Your task to perform on an android device: add a label to a message in the gmail app Image 0: 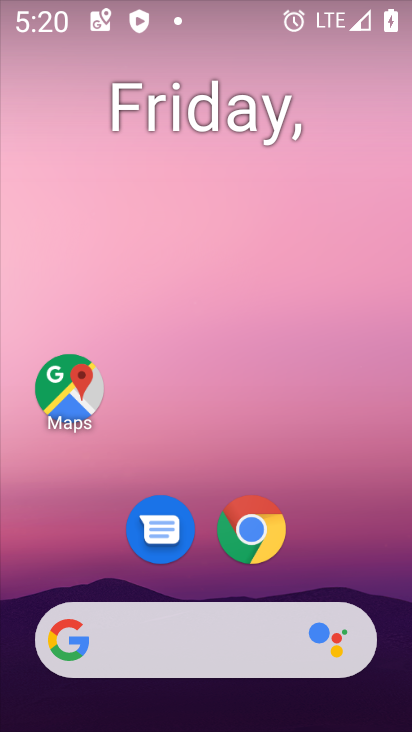
Step 0: drag from (325, 553) to (242, 60)
Your task to perform on an android device: add a label to a message in the gmail app Image 1: 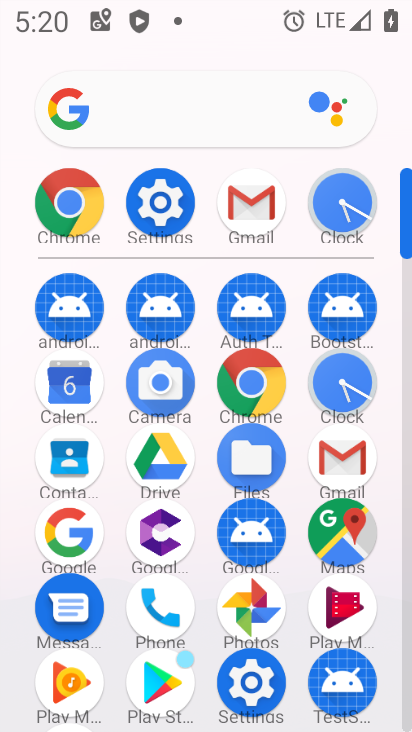
Step 1: click (252, 260)
Your task to perform on an android device: add a label to a message in the gmail app Image 2: 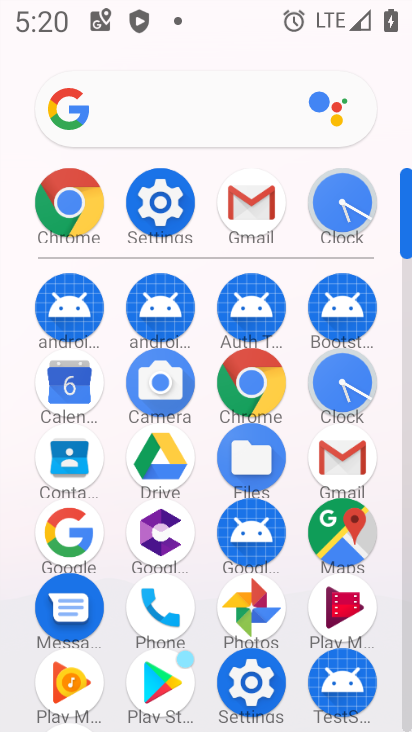
Step 2: click (249, 219)
Your task to perform on an android device: add a label to a message in the gmail app Image 3: 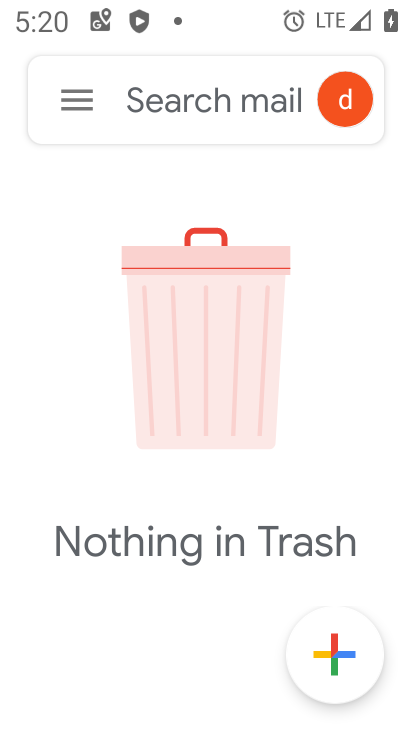
Step 3: click (74, 101)
Your task to perform on an android device: add a label to a message in the gmail app Image 4: 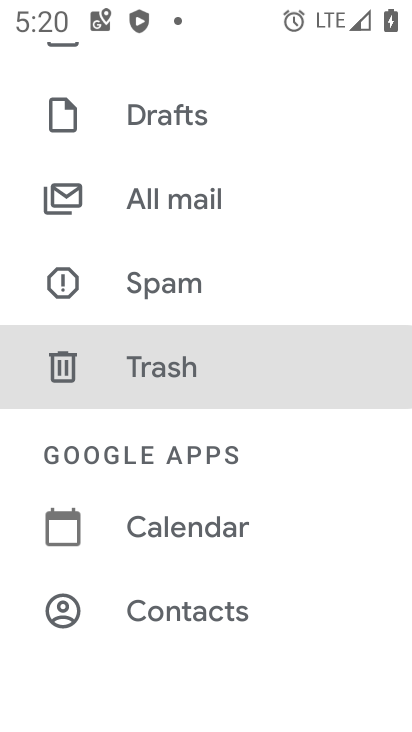
Step 4: click (194, 192)
Your task to perform on an android device: add a label to a message in the gmail app Image 5: 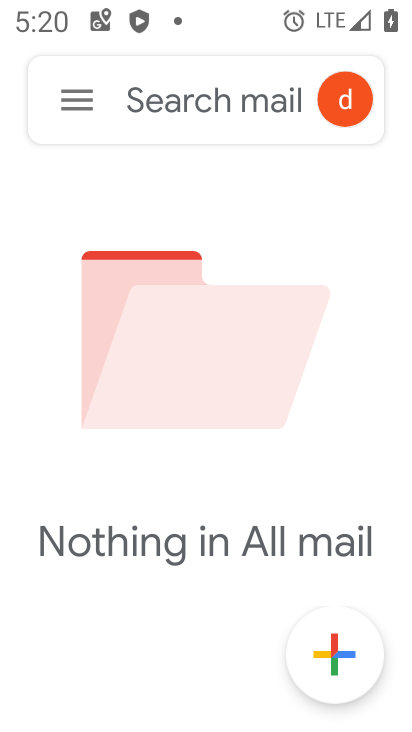
Step 5: task complete